Your task to perform on an android device: When is my next meeting? Image 0: 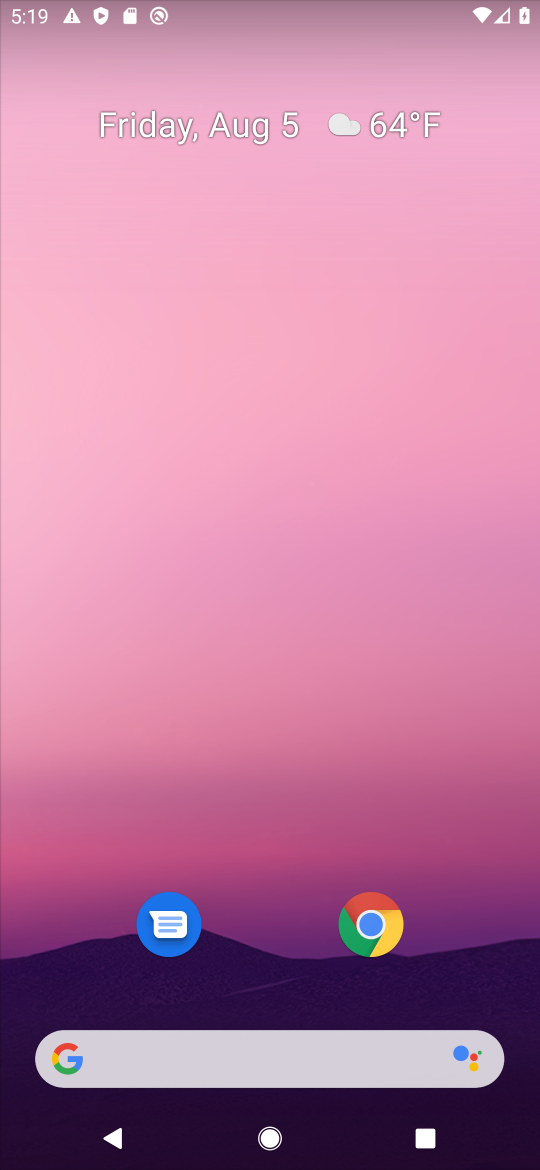
Step 0: drag from (263, 523) to (360, 44)
Your task to perform on an android device: When is my next meeting? Image 1: 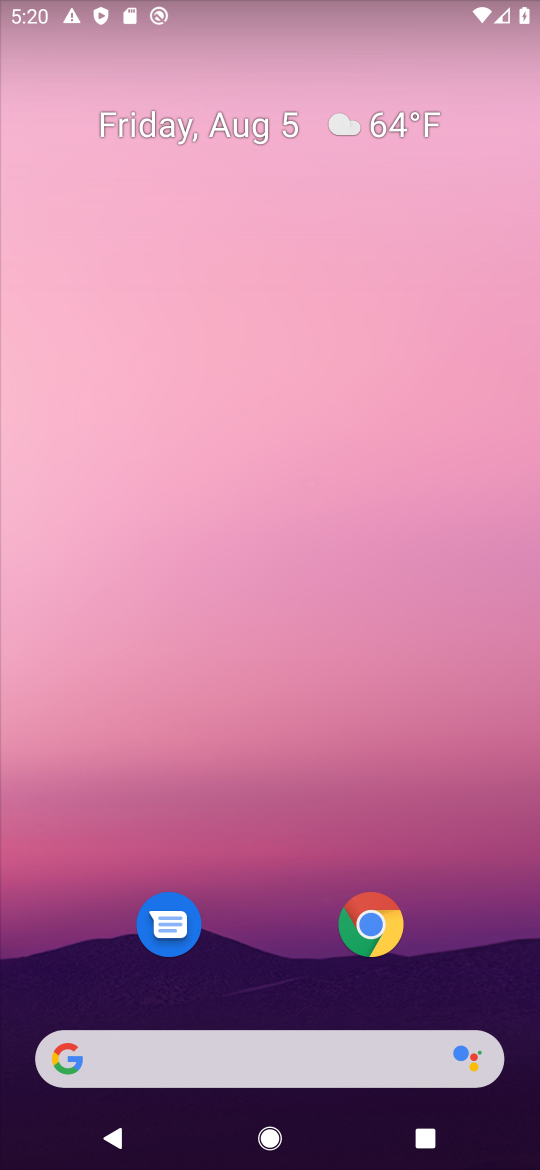
Step 1: drag from (211, 1126) to (188, 84)
Your task to perform on an android device: When is my next meeting? Image 2: 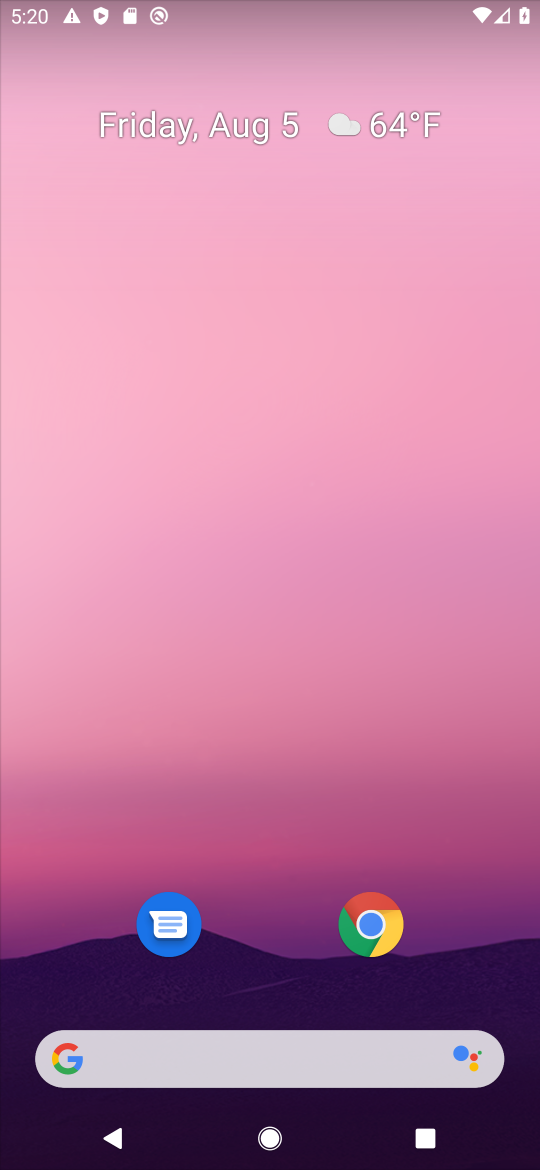
Step 2: drag from (290, 740) to (516, 25)
Your task to perform on an android device: When is my next meeting? Image 3: 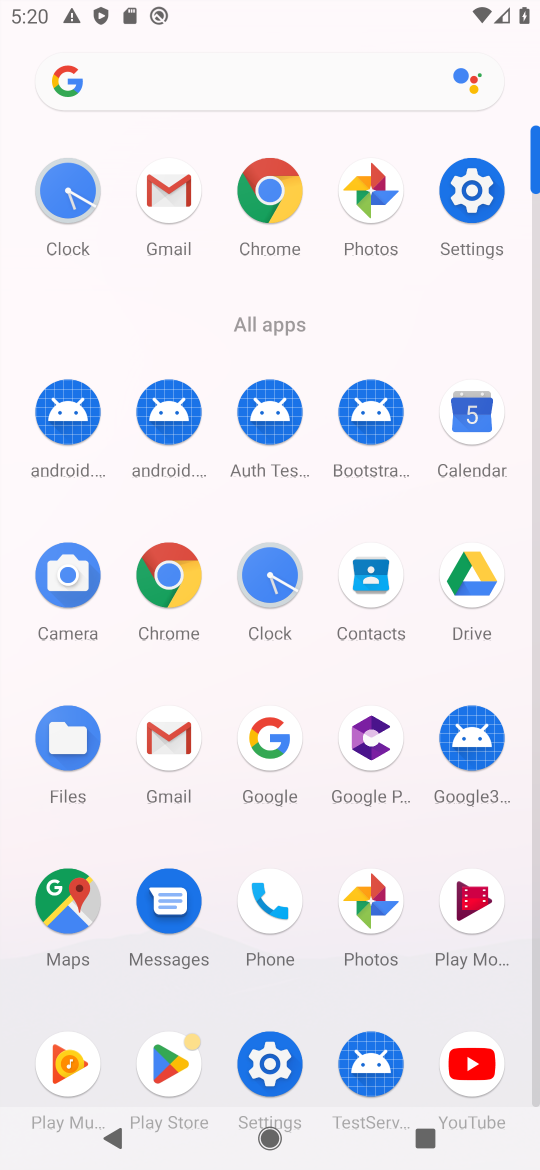
Step 3: click (481, 417)
Your task to perform on an android device: When is my next meeting? Image 4: 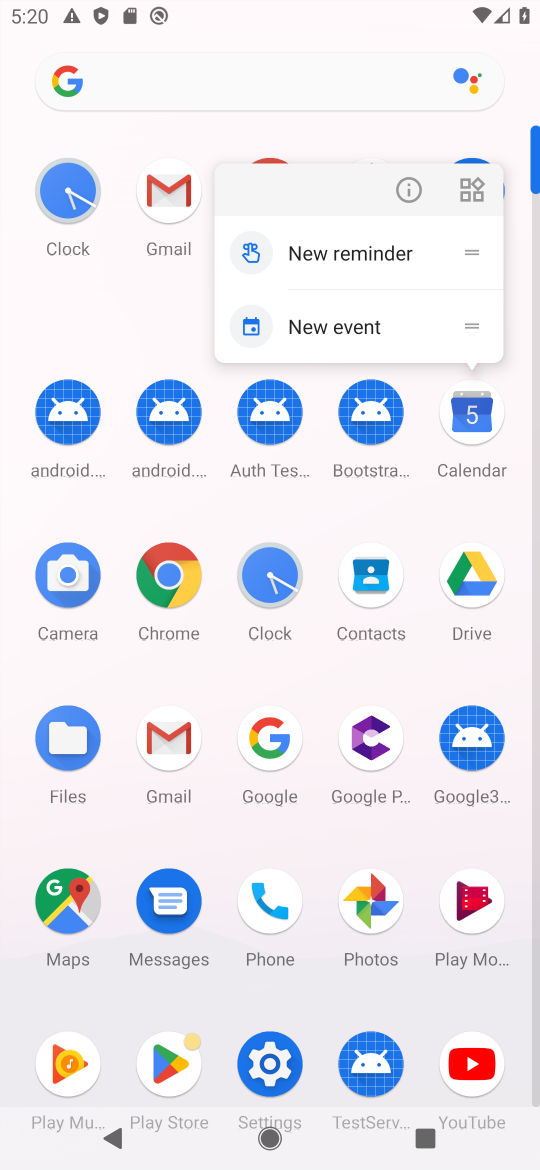
Step 4: click (476, 419)
Your task to perform on an android device: When is my next meeting? Image 5: 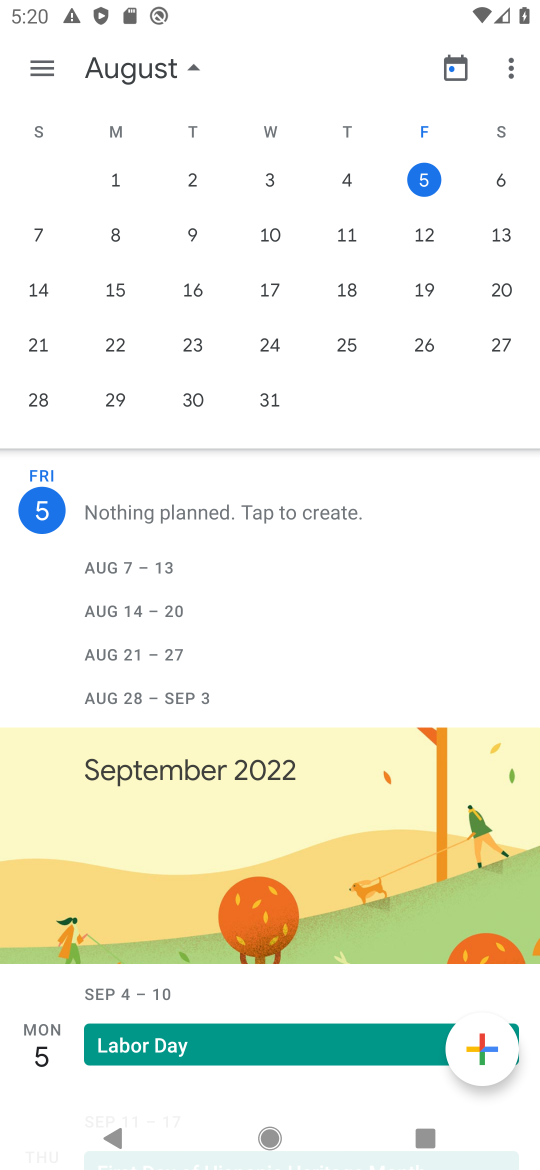
Step 5: click (26, 65)
Your task to perform on an android device: When is my next meeting? Image 6: 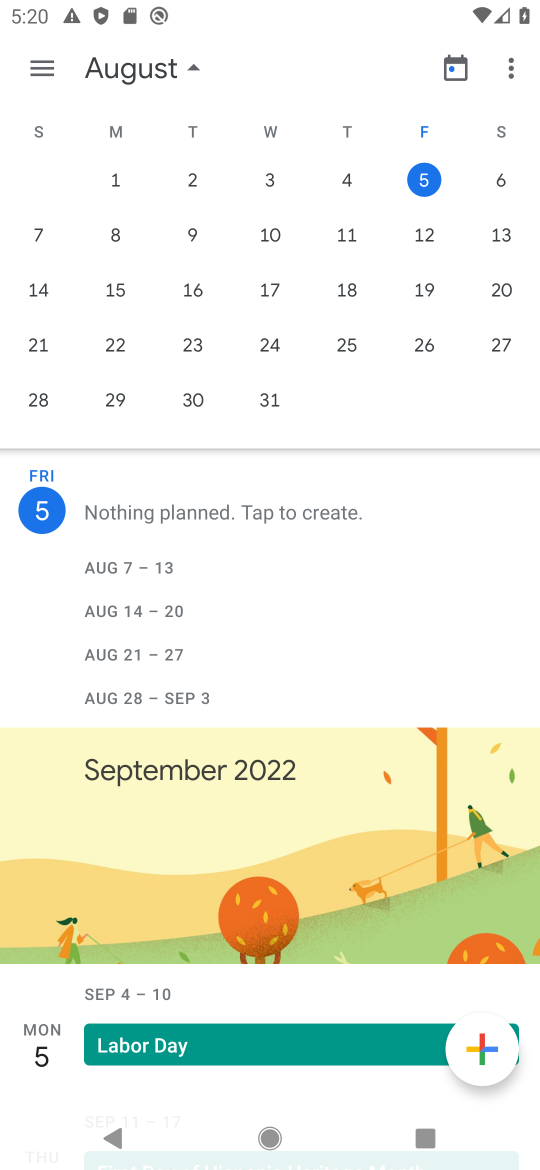
Step 6: click (30, 63)
Your task to perform on an android device: When is my next meeting? Image 7: 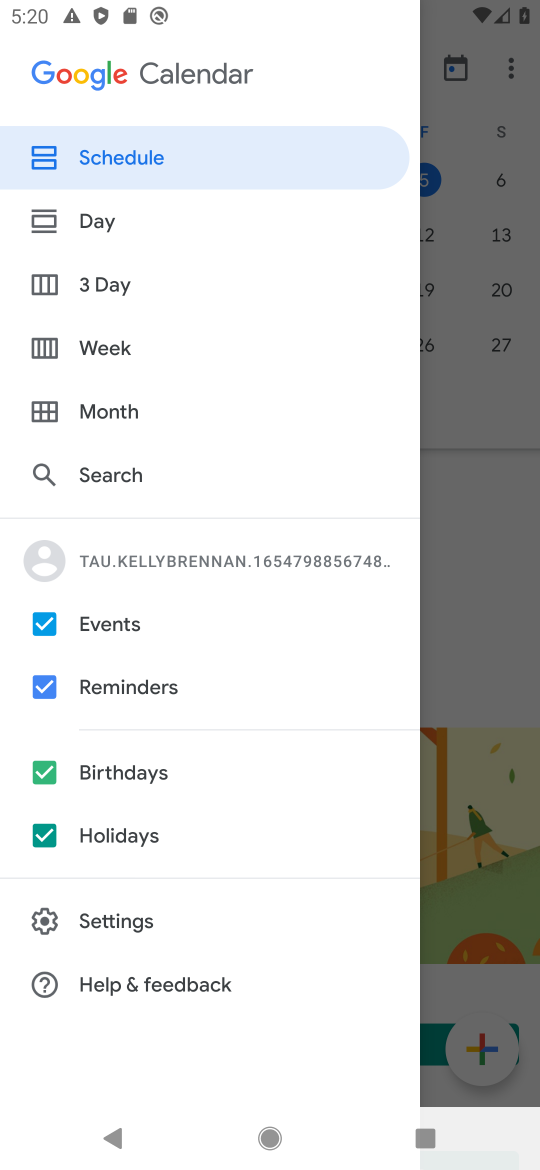
Step 7: click (122, 163)
Your task to perform on an android device: When is my next meeting? Image 8: 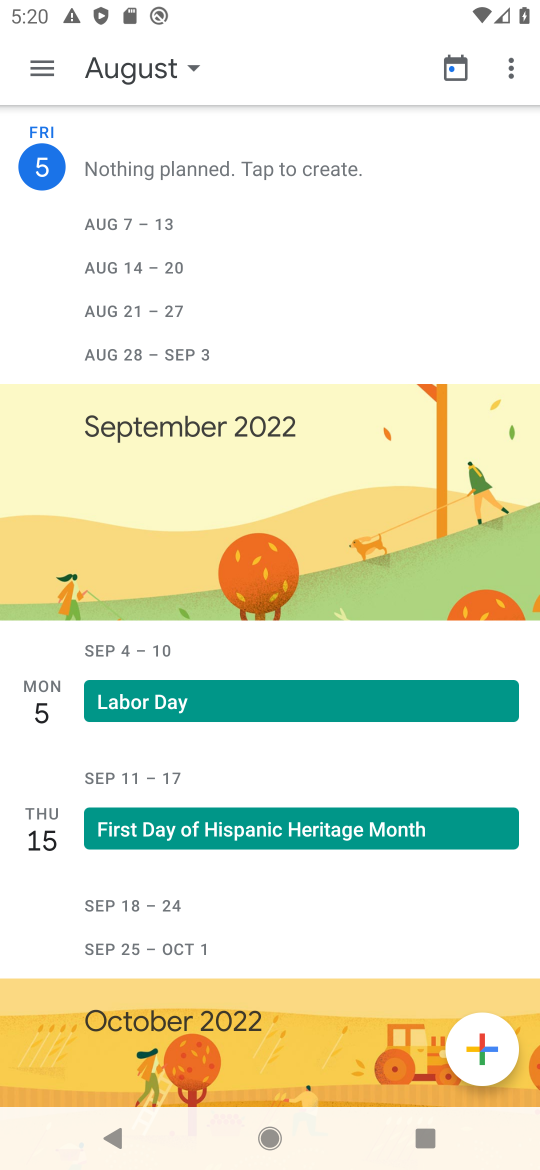
Step 8: task complete